Your task to perform on an android device: change the upload size in google photos Image 0: 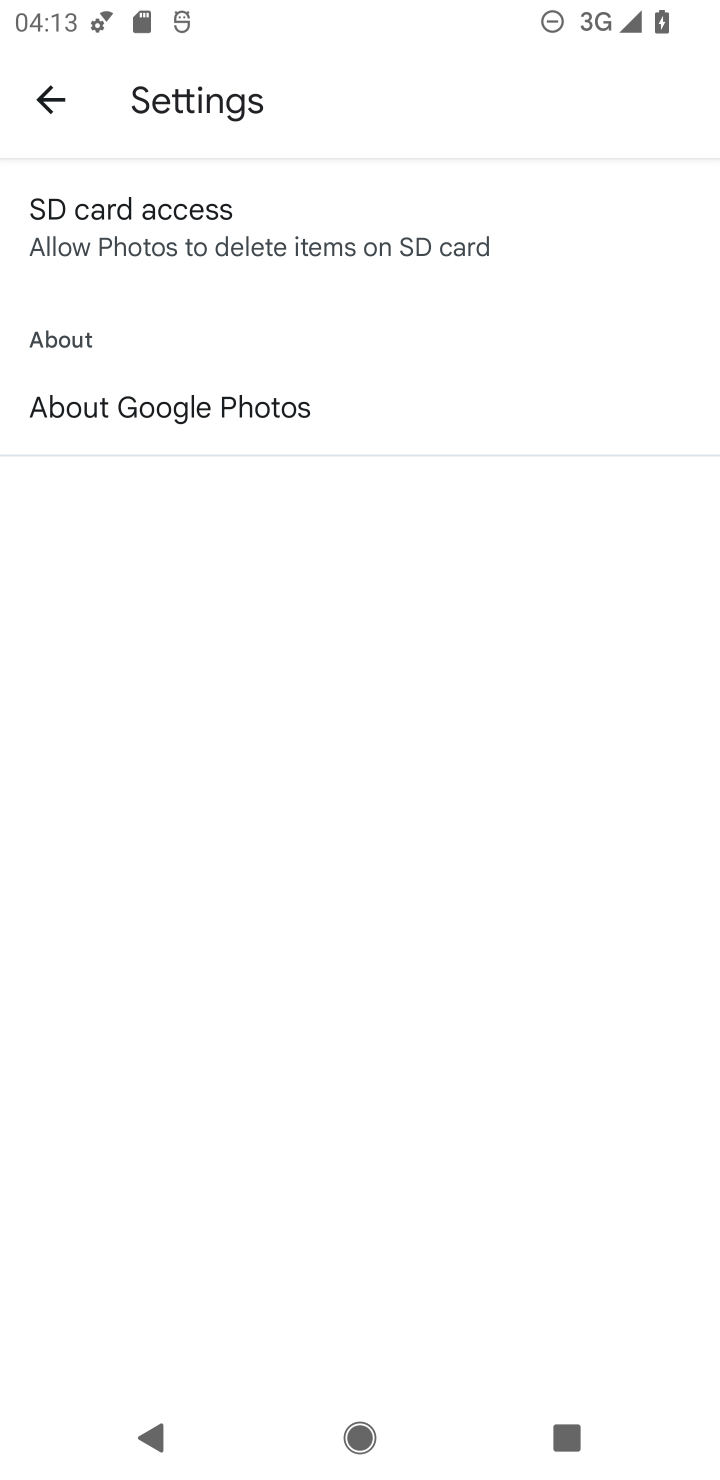
Step 0: press home button
Your task to perform on an android device: change the upload size in google photos Image 1: 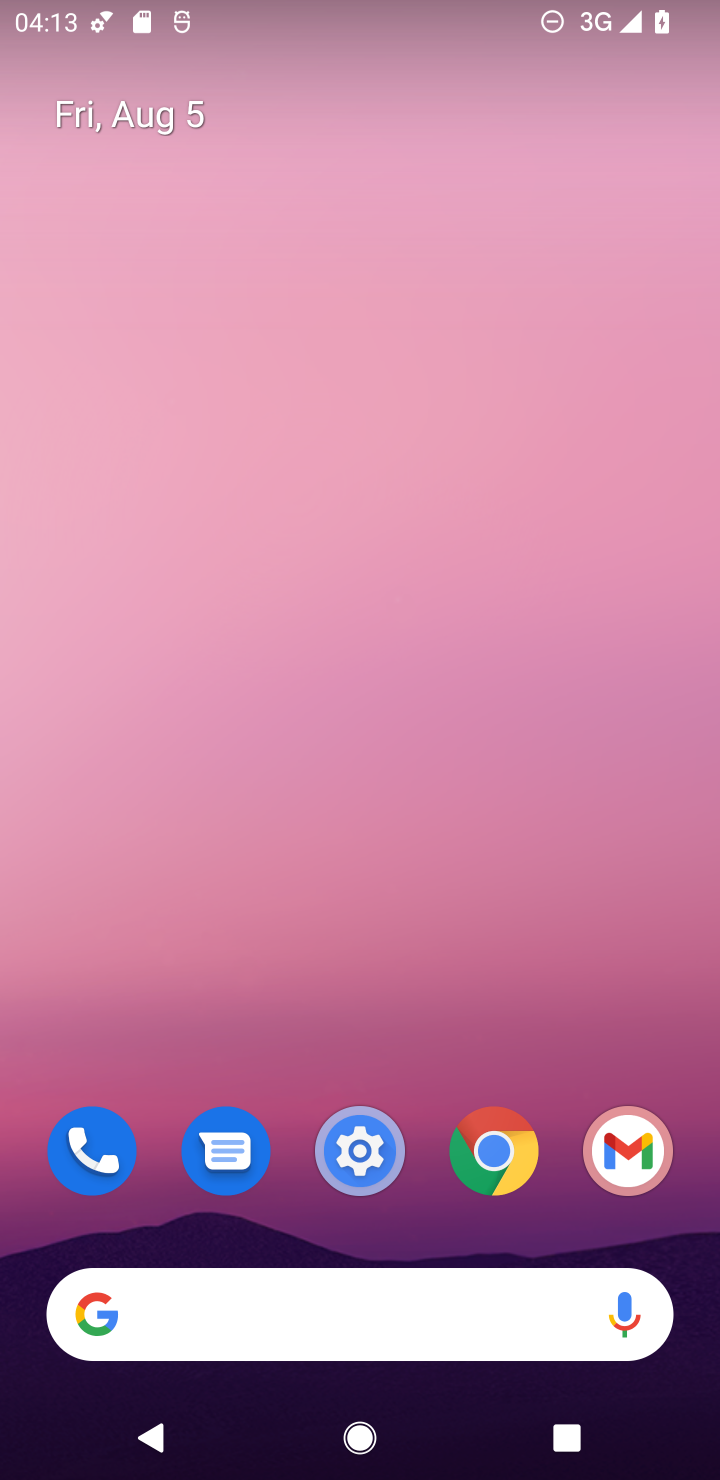
Step 1: drag from (403, 995) to (403, 327)
Your task to perform on an android device: change the upload size in google photos Image 2: 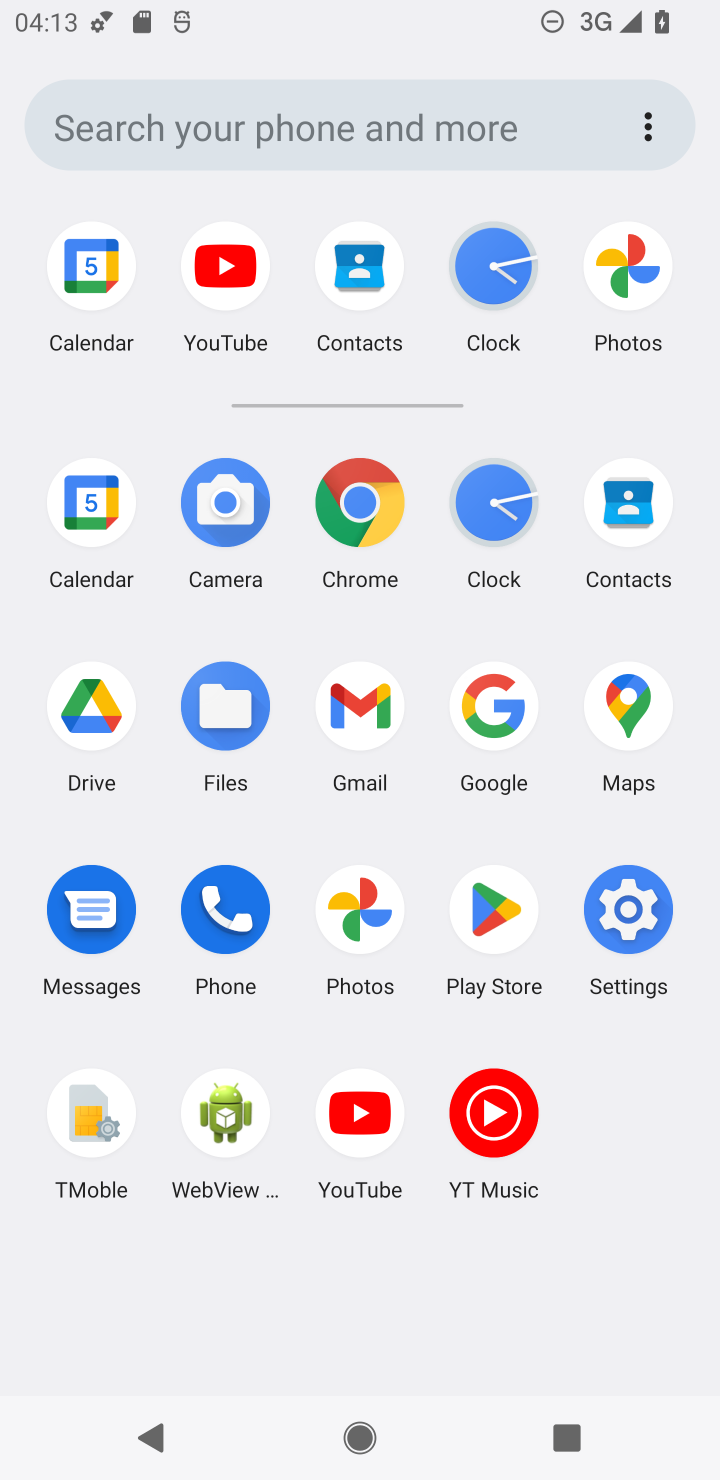
Step 2: click (623, 256)
Your task to perform on an android device: change the upload size in google photos Image 3: 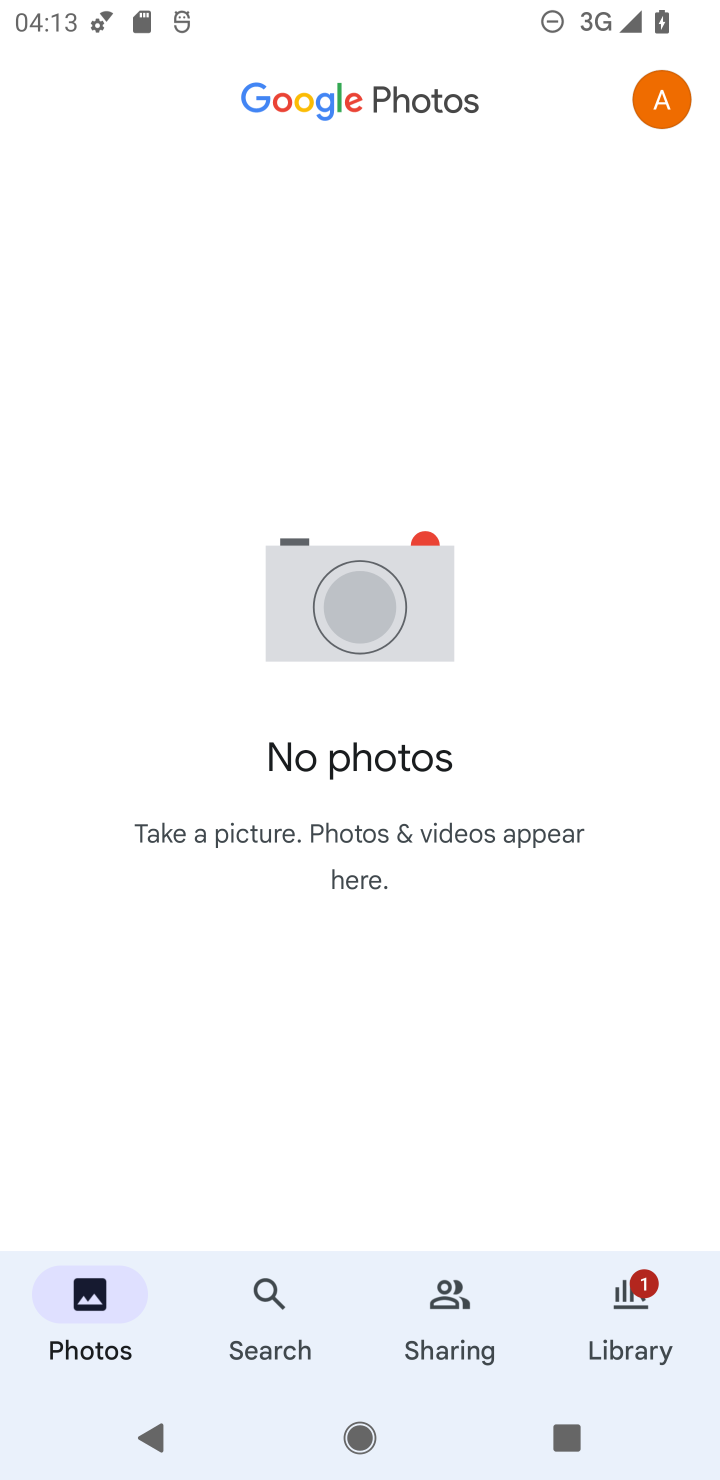
Step 3: click (670, 101)
Your task to perform on an android device: change the upload size in google photos Image 4: 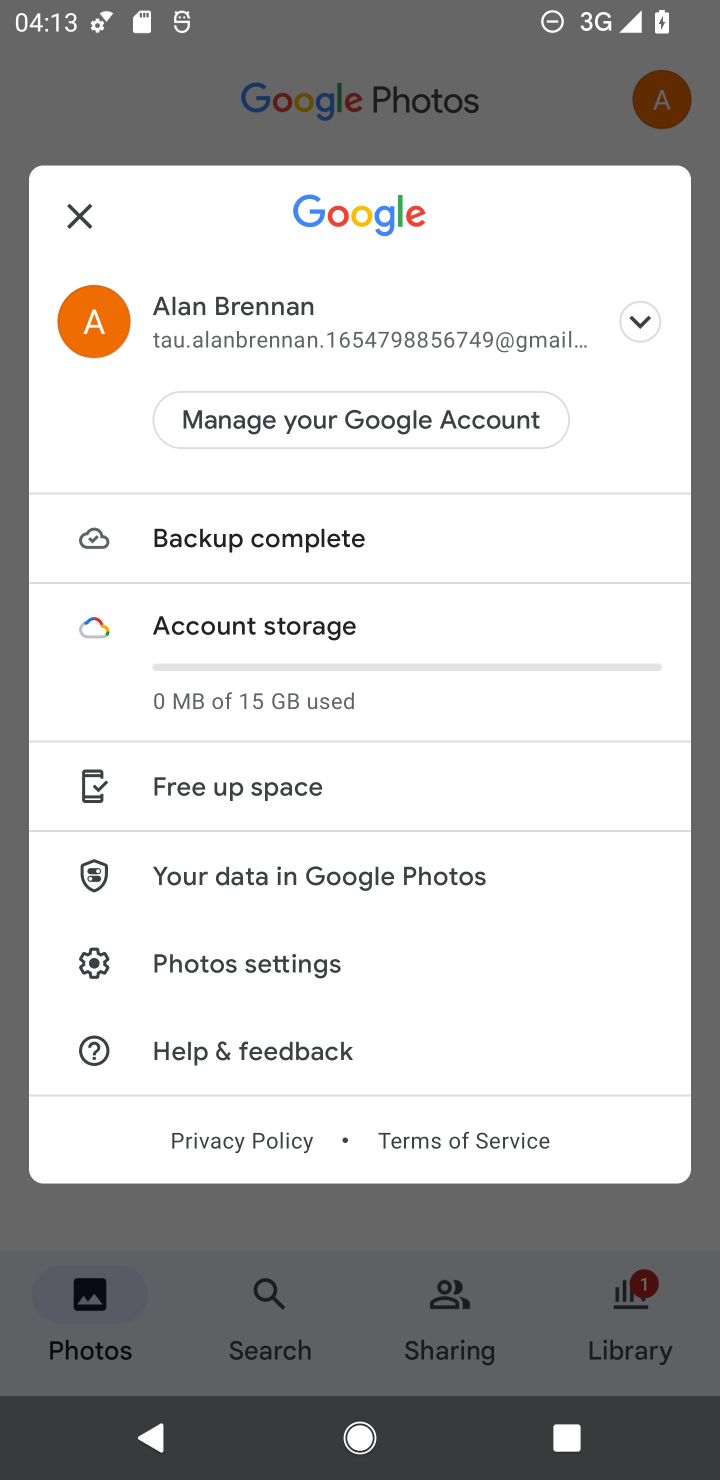
Step 4: click (292, 971)
Your task to perform on an android device: change the upload size in google photos Image 5: 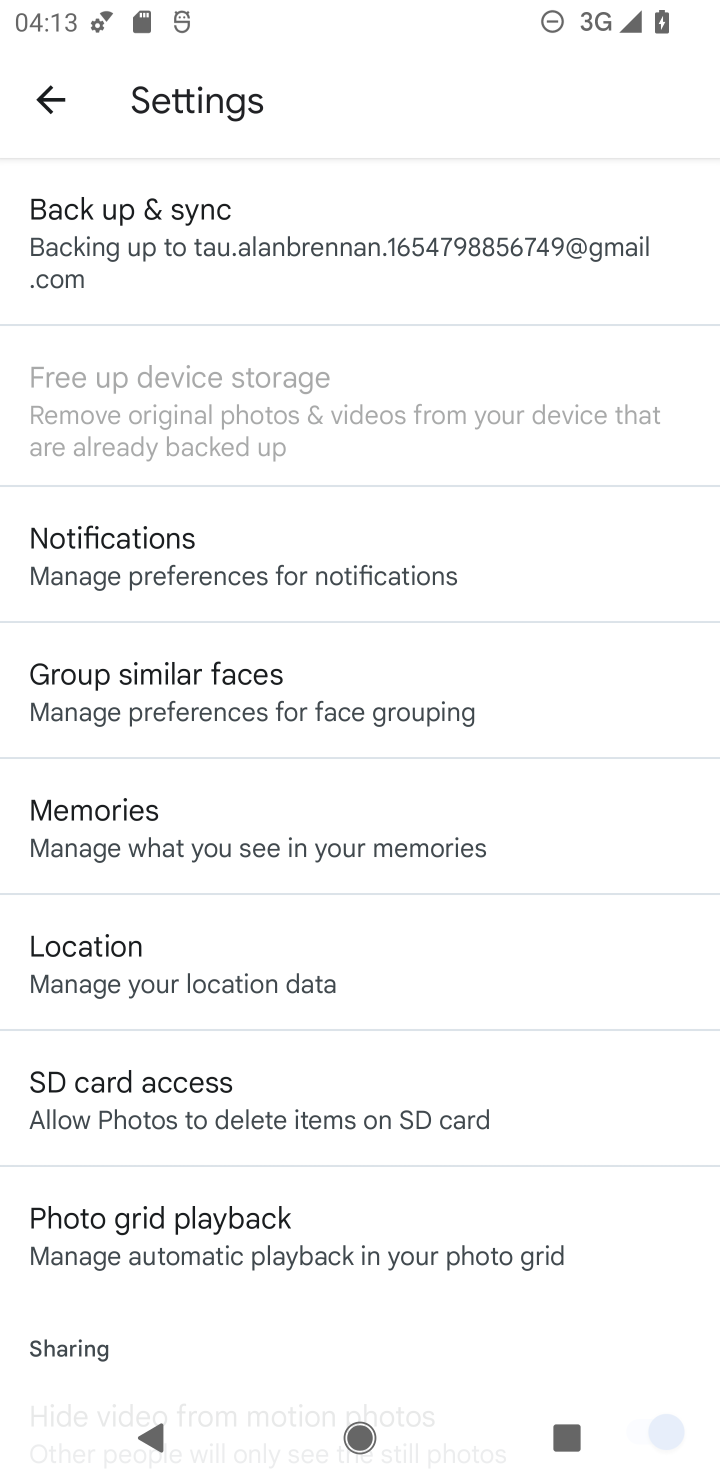
Step 5: click (347, 235)
Your task to perform on an android device: change the upload size in google photos Image 6: 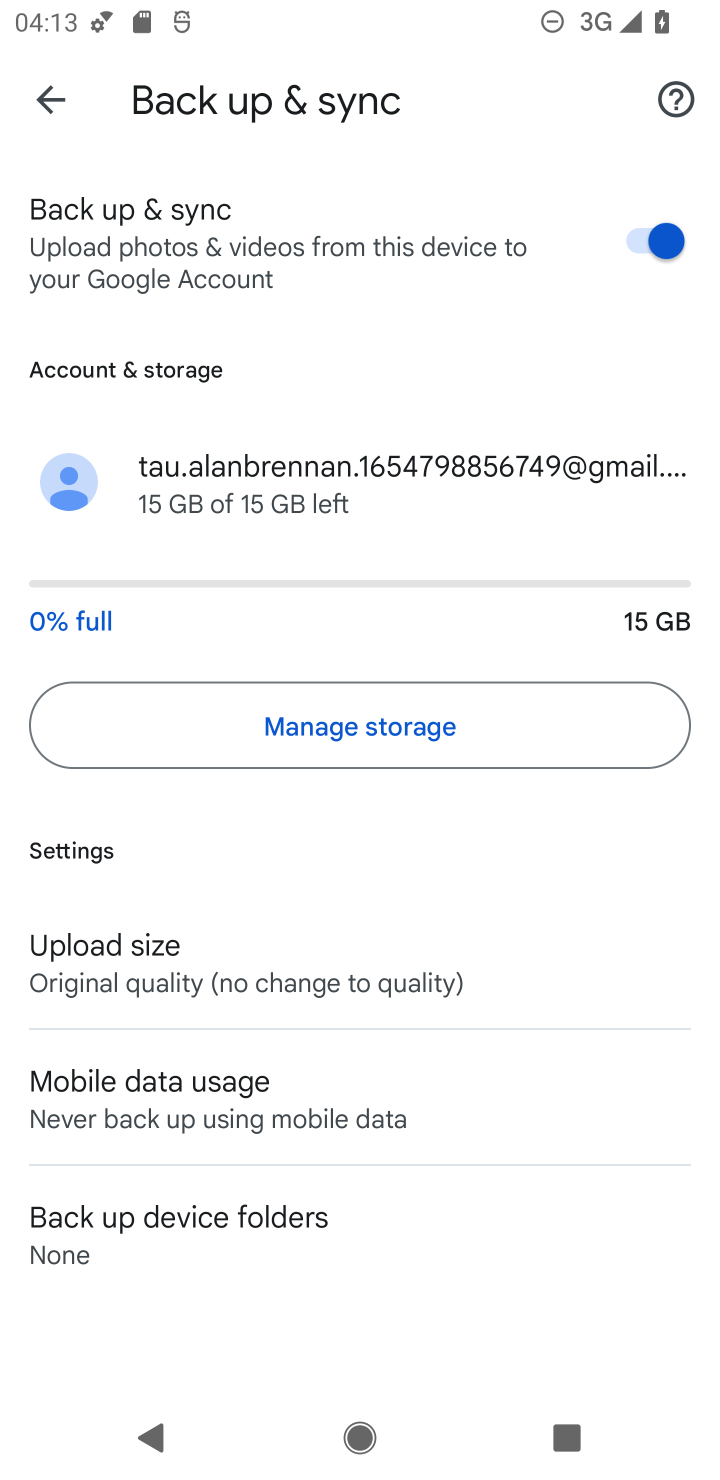
Step 6: click (244, 969)
Your task to perform on an android device: change the upload size in google photos Image 7: 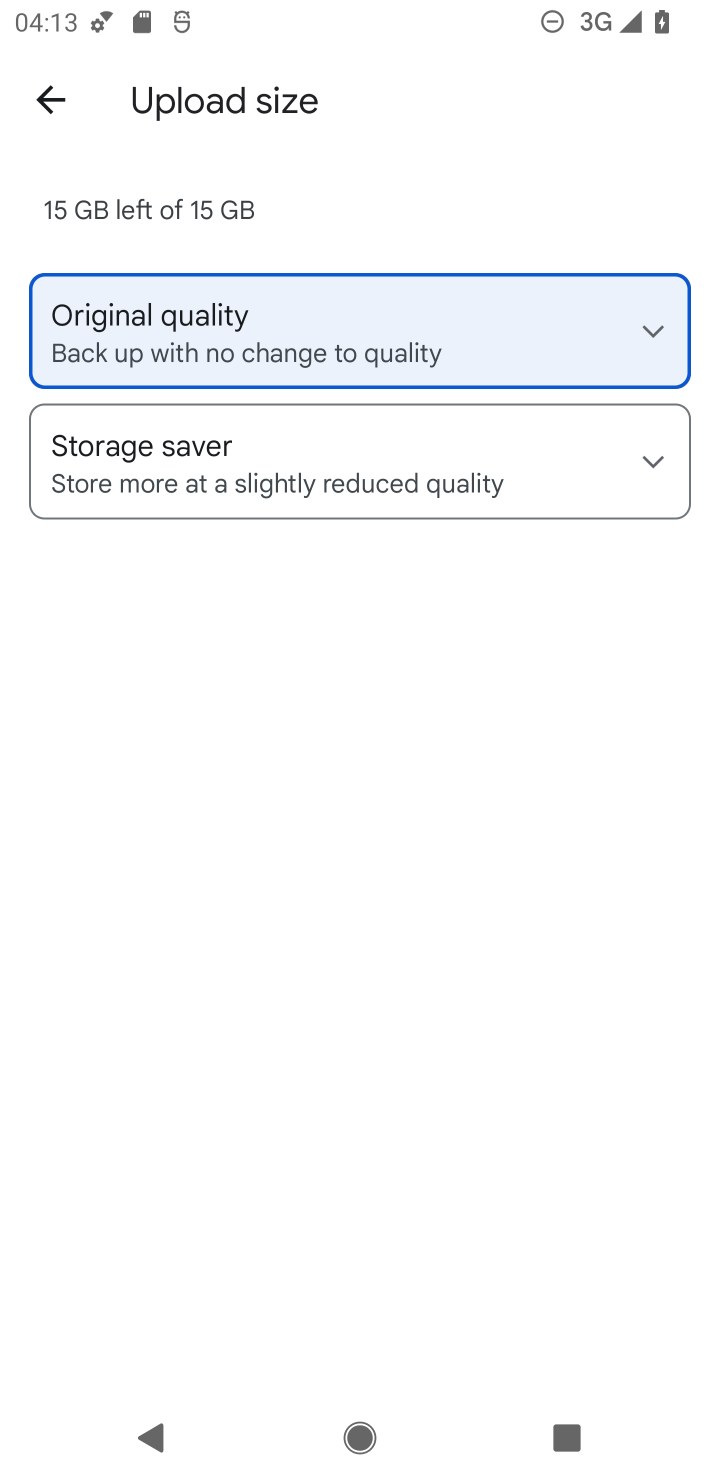
Step 7: click (400, 492)
Your task to perform on an android device: change the upload size in google photos Image 8: 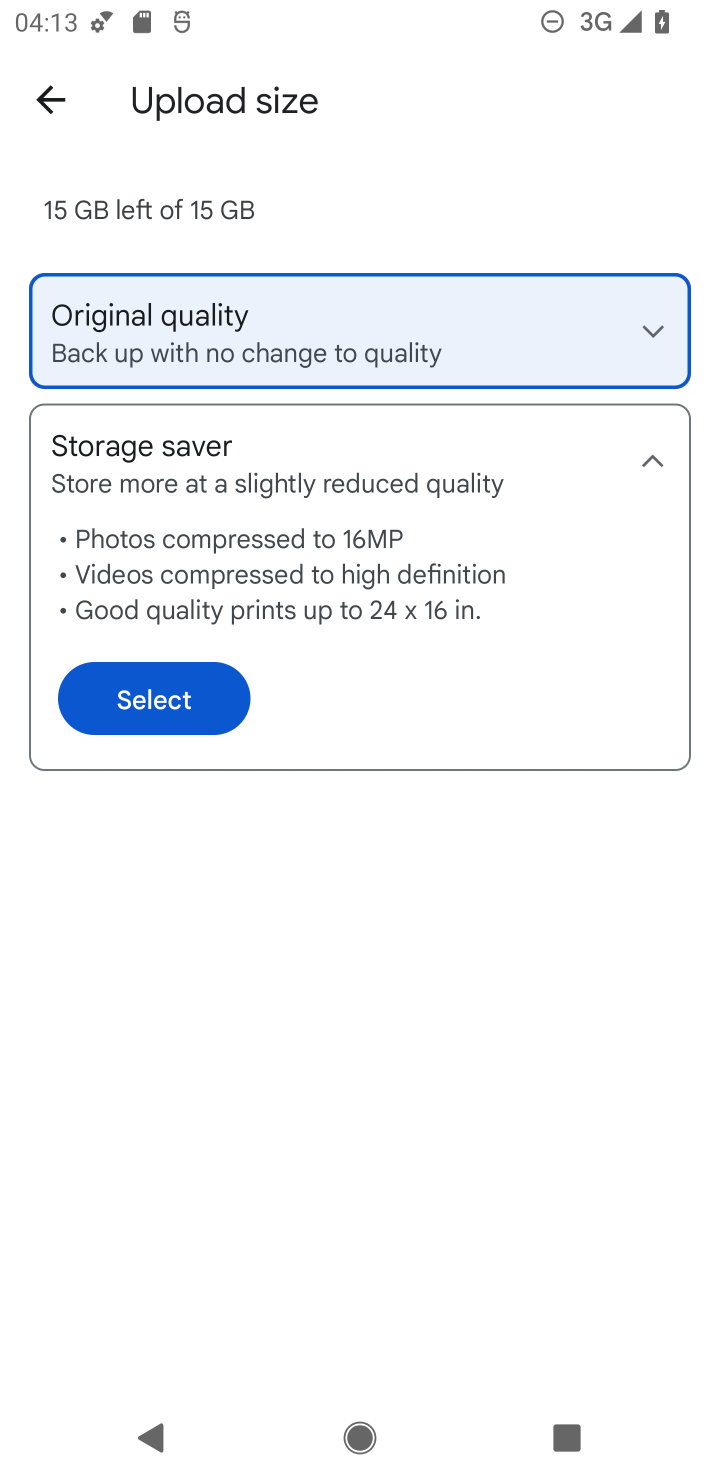
Step 8: click (201, 680)
Your task to perform on an android device: change the upload size in google photos Image 9: 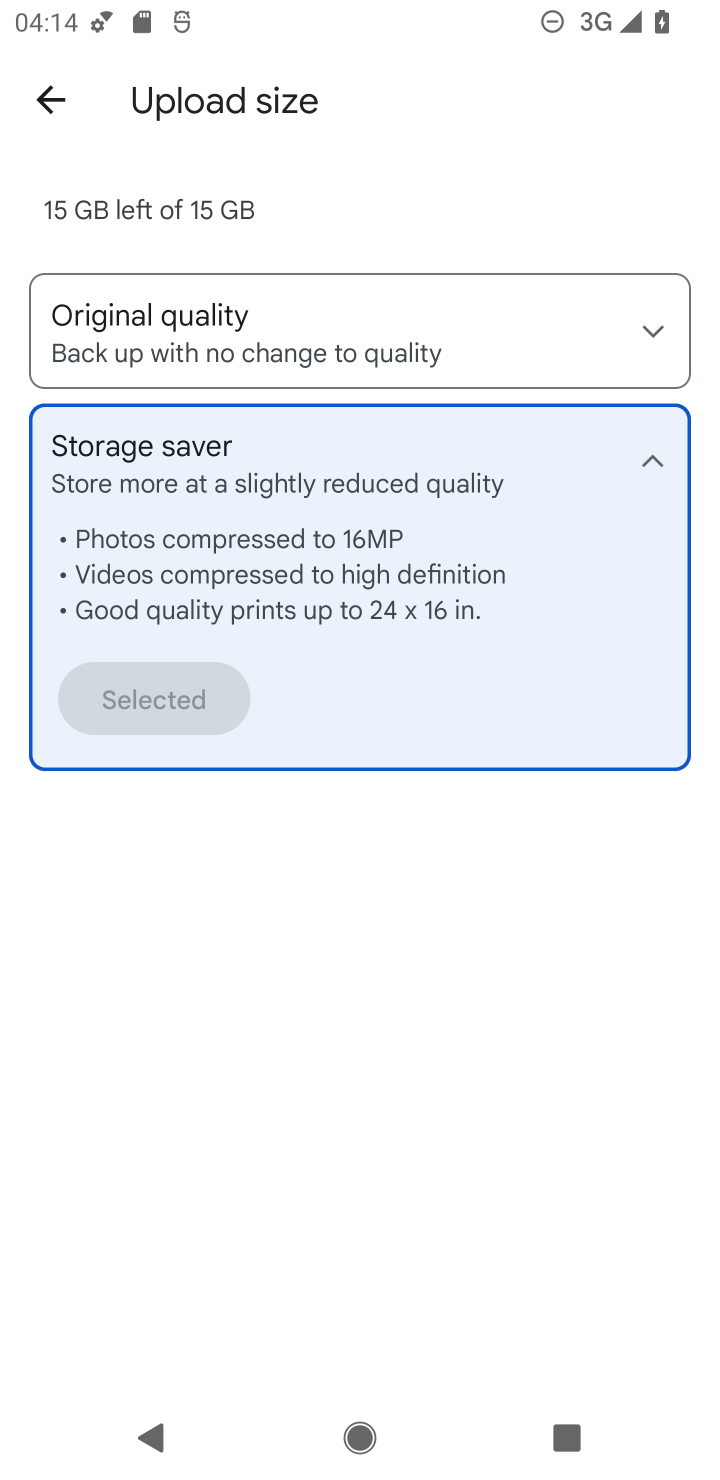
Step 9: task complete